Your task to perform on an android device: Go to ESPN.com Image 0: 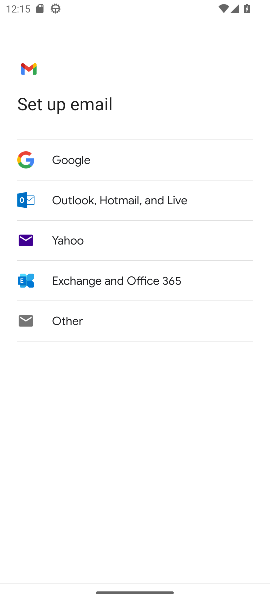
Step 0: press home button
Your task to perform on an android device: Go to ESPN.com Image 1: 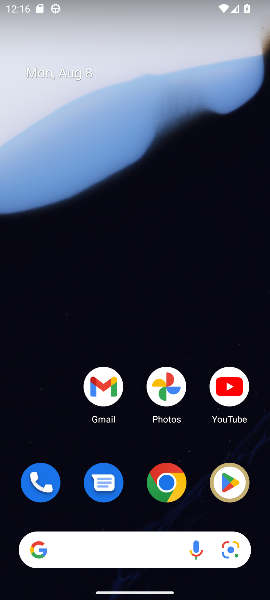
Step 1: drag from (164, 540) to (219, 149)
Your task to perform on an android device: Go to ESPN.com Image 2: 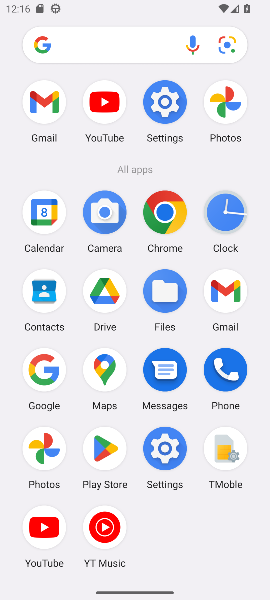
Step 2: click (181, 209)
Your task to perform on an android device: Go to ESPN.com Image 3: 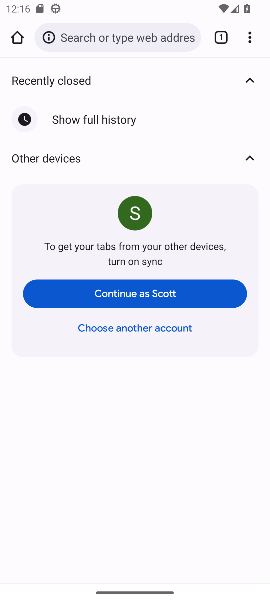
Step 3: click (132, 31)
Your task to perform on an android device: Go to ESPN.com Image 4: 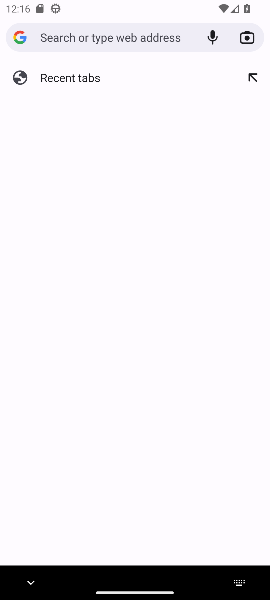
Step 4: type "espn.com"
Your task to perform on an android device: Go to ESPN.com Image 5: 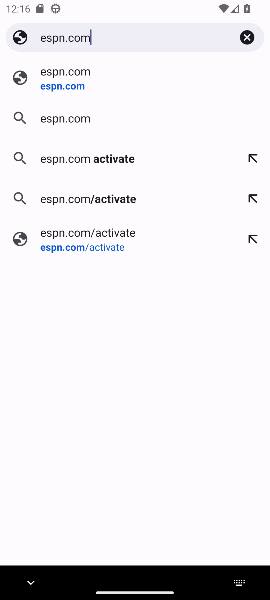
Step 5: click (96, 67)
Your task to perform on an android device: Go to ESPN.com Image 6: 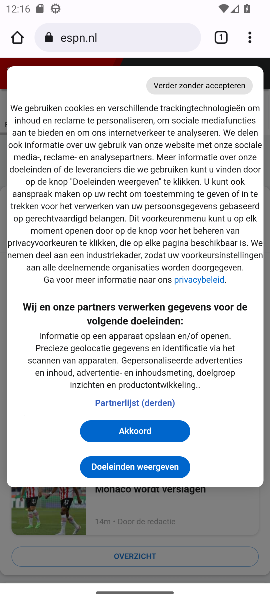
Step 6: task complete